Your task to perform on an android device: change the clock display to show seconds Image 0: 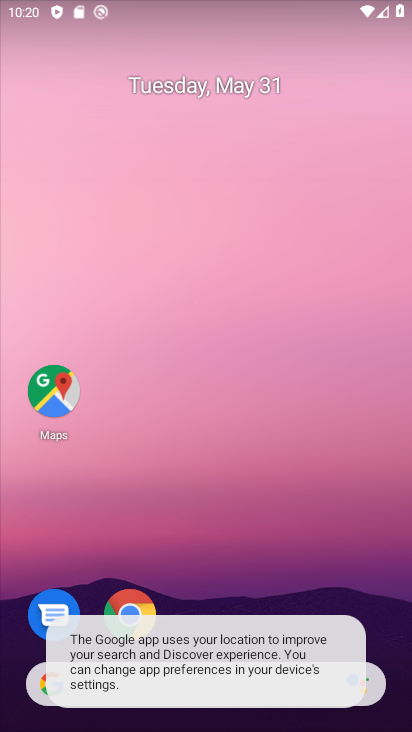
Step 0: drag from (349, 524) to (349, 111)
Your task to perform on an android device: change the clock display to show seconds Image 1: 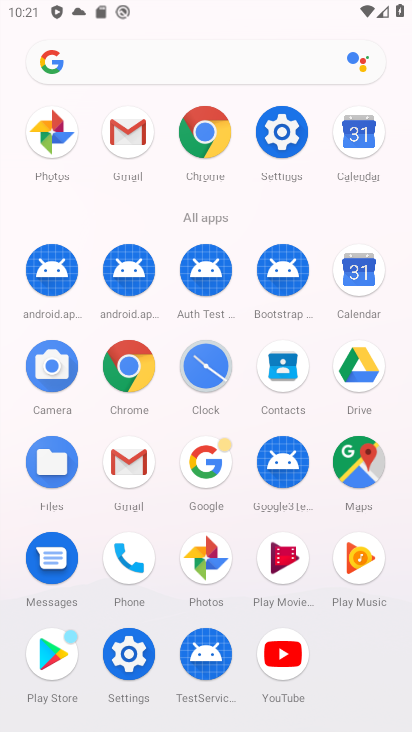
Step 1: click (216, 374)
Your task to perform on an android device: change the clock display to show seconds Image 2: 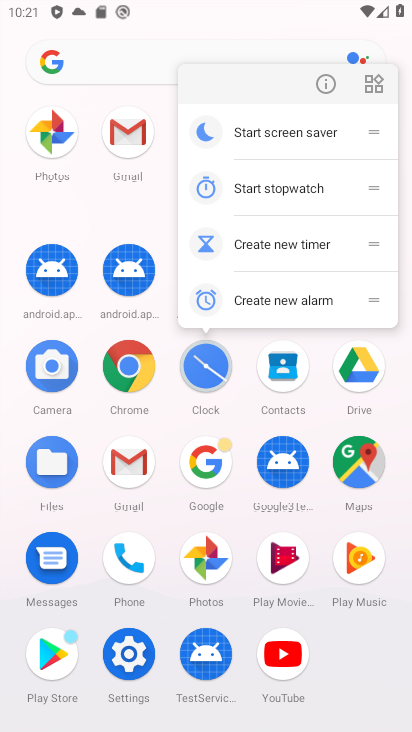
Step 2: click (216, 374)
Your task to perform on an android device: change the clock display to show seconds Image 3: 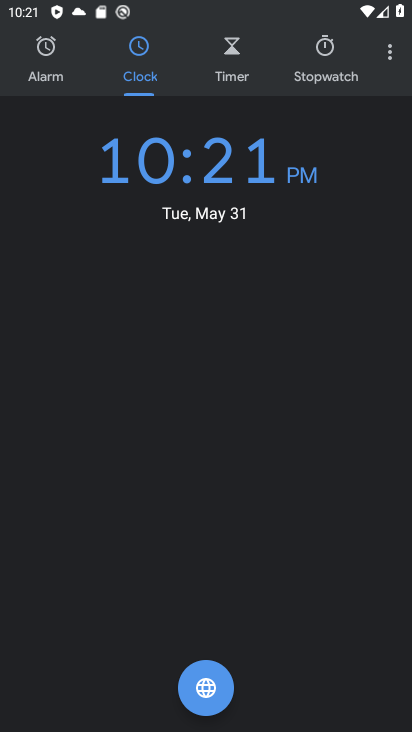
Step 3: click (389, 49)
Your task to perform on an android device: change the clock display to show seconds Image 4: 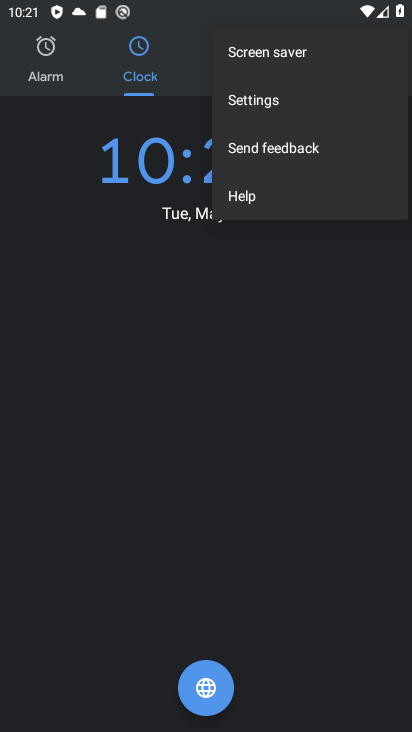
Step 4: click (295, 115)
Your task to perform on an android device: change the clock display to show seconds Image 5: 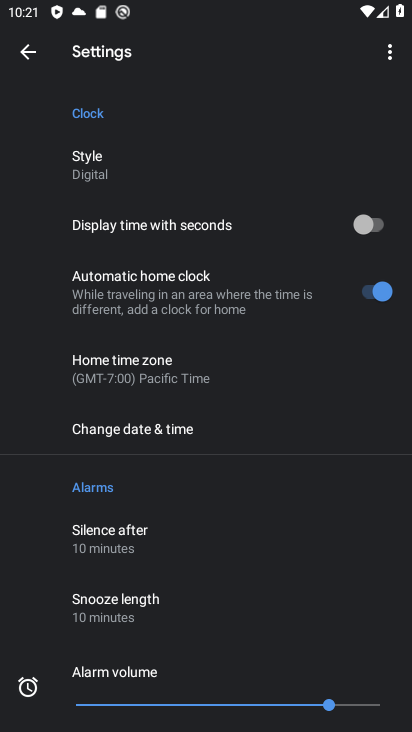
Step 5: click (372, 227)
Your task to perform on an android device: change the clock display to show seconds Image 6: 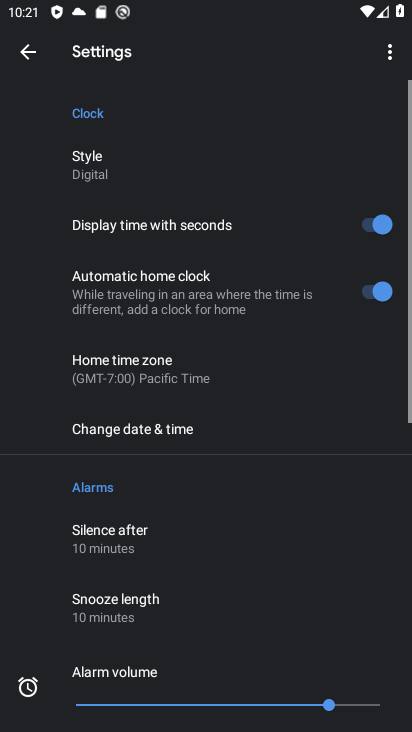
Step 6: task complete